Your task to perform on an android device: turn on the 12-hour format for clock Image 0: 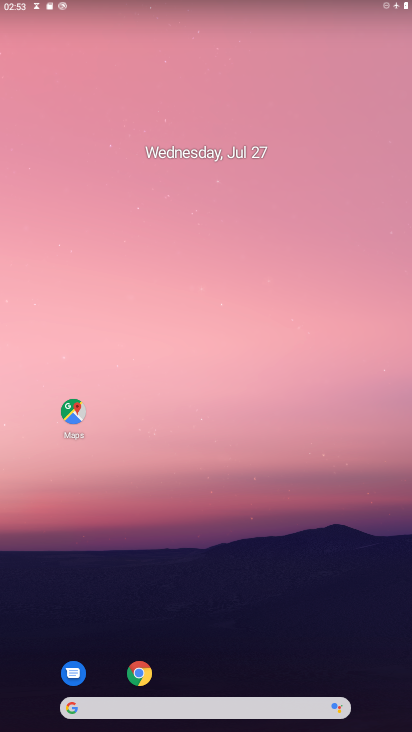
Step 0: drag from (229, 663) to (264, 271)
Your task to perform on an android device: turn on the 12-hour format for clock Image 1: 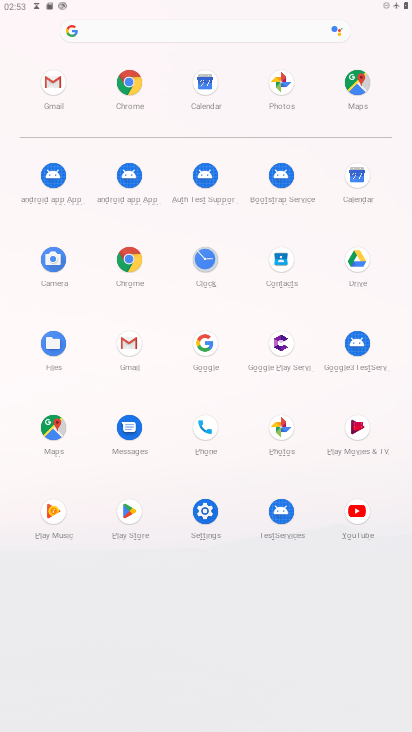
Step 1: click (194, 259)
Your task to perform on an android device: turn on the 12-hour format for clock Image 2: 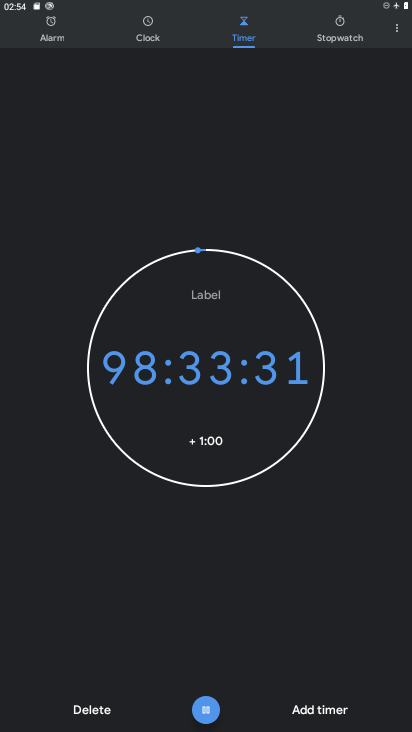
Step 2: click (404, 24)
Your task to perform on an android device: turn on the 12-hour format for clock Image 3: 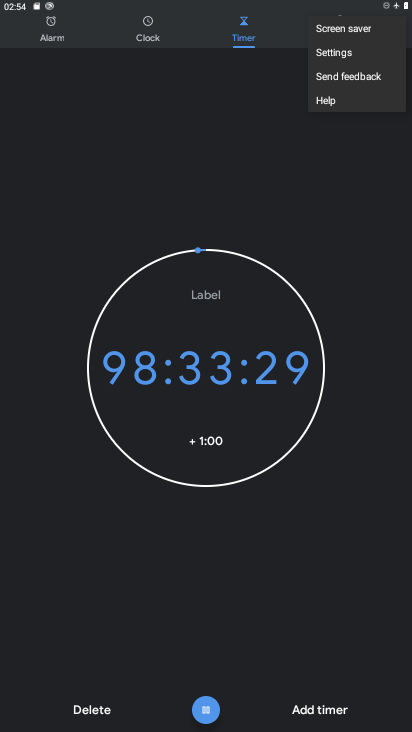
Step 3: click (337, 59)
Your task to perform on an android device: turn on the 12-hour format for clock Image 4: 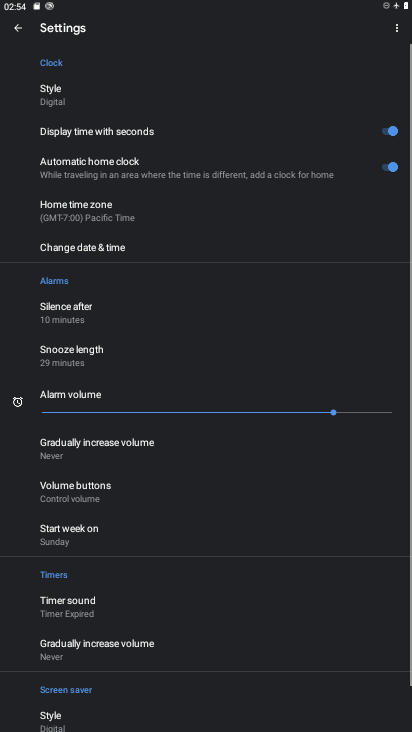
Step 4: click (124, 242)
Your task to perform on an android device: turn on the 12-hour format for clock Image 5: 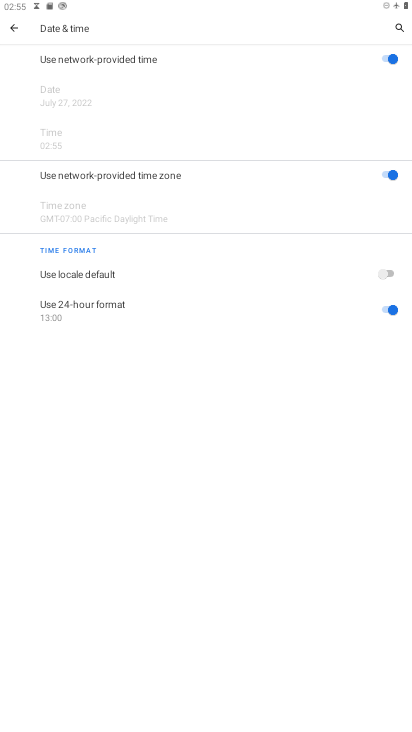
Step 5: task complete